Your task to perform on an android device: find photos in the google photos app Image 0: 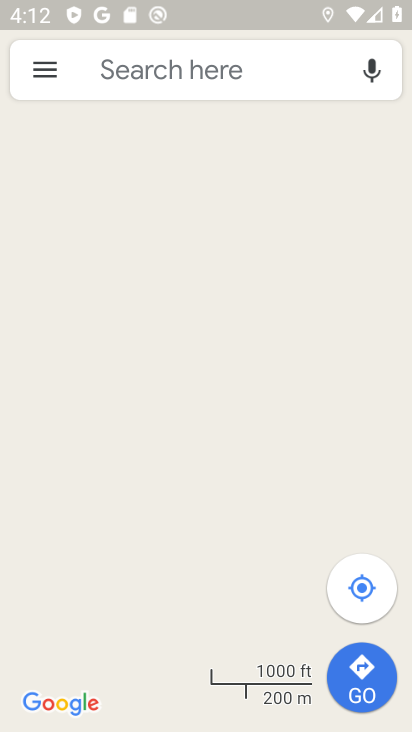
Step 0: press home button
Your task to perform on an android device: find photos in the google photos app Image 1: 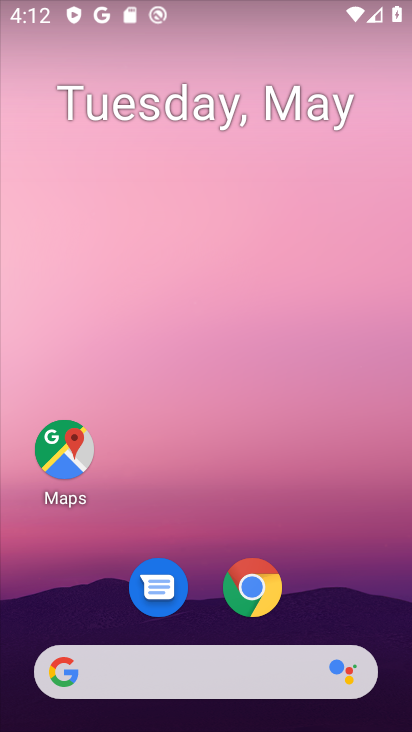
Step 1: drag from (380, 617) to (385, 220)
Your task to perform on an android device: find photos in the google photos app Image 2: 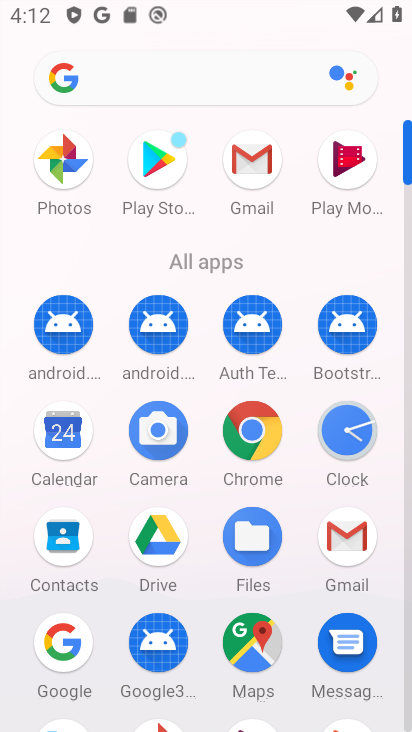
Step 2: drag from (385, 641) to (386, 417)
Your task to perform on an android device: find photos in the google photos app Image 3: 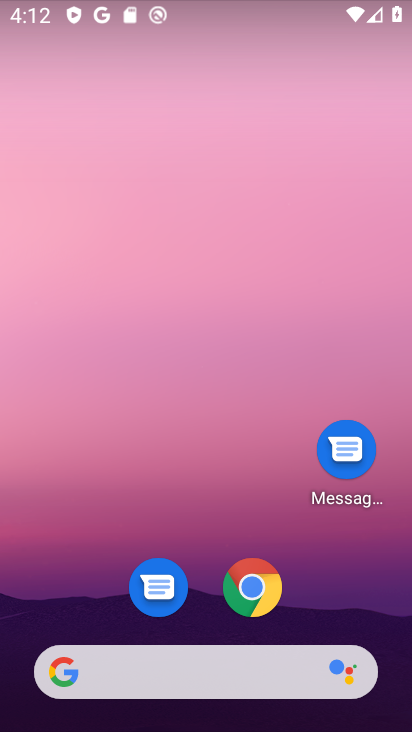
Step 3: drag from (362, 608) to (380, 195)
Your task to perform on an android device: find photos in the google photos app Image 4: 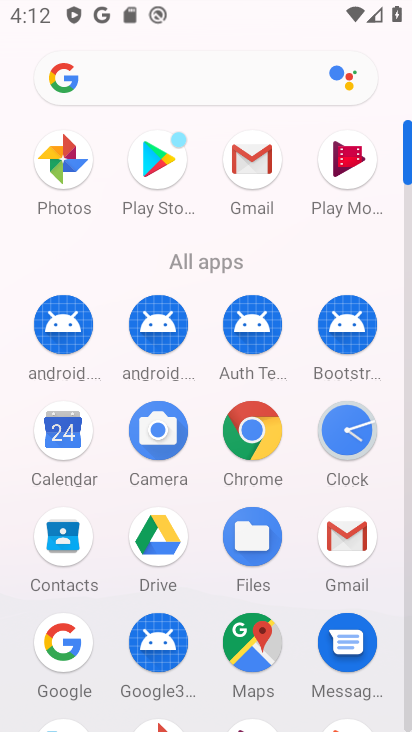
Step 4: drag from (390, 644) to (375, 438)
Your task to perform on an android device: find photos in the google photos app Image 5: 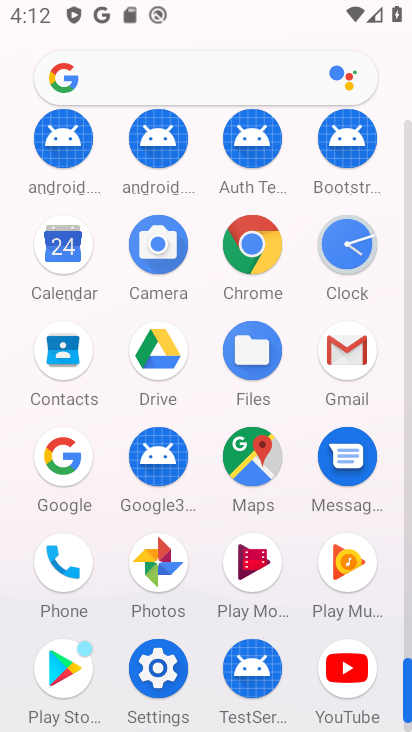
Step 5: click (170, 572)
Your task to perform on an android device: find photos in the google photos app Image 6: 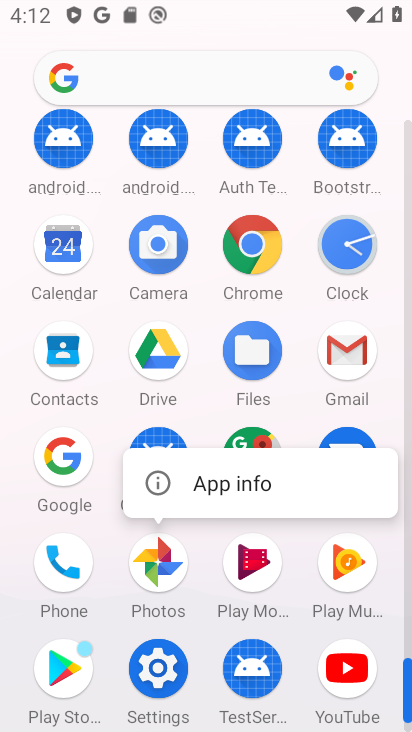
Step 6: click (170, 572)
Your task to perform on an android device: find photos in the google photos app Image 7: 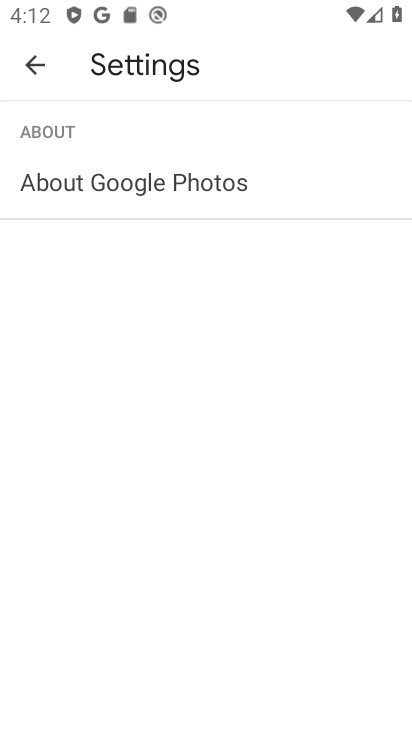
Step 7: click (38, 63)
Your task to perform on an android device: find photos in the google photos app Image 8: 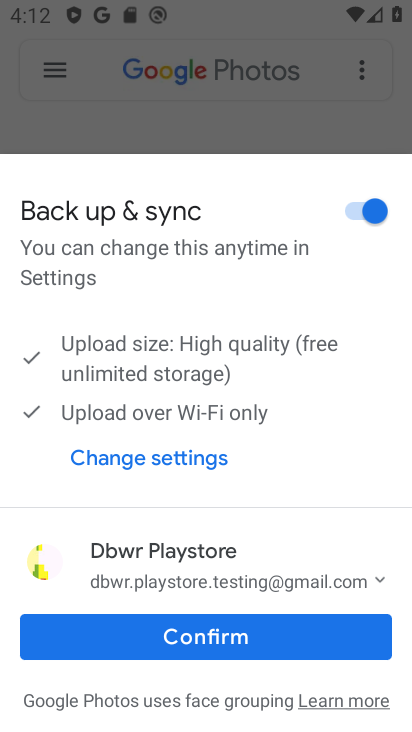
Step 8: click (274, 633)
Your task to perform on an android device: find photos in the google photos app Image 9: 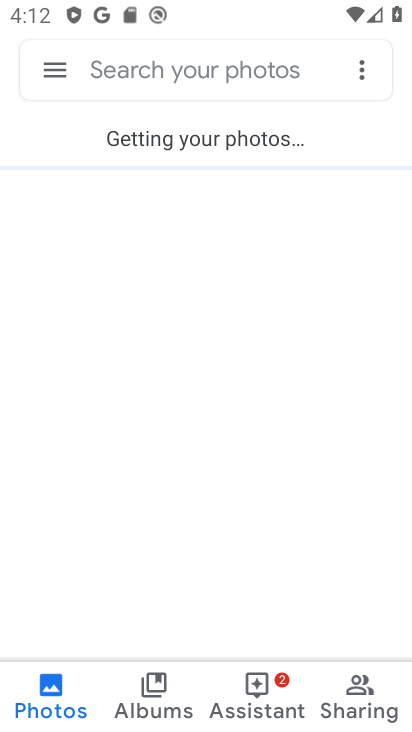
Step 9: task complete